Your task to perform on an android device: turn on sleep mode Image 0: 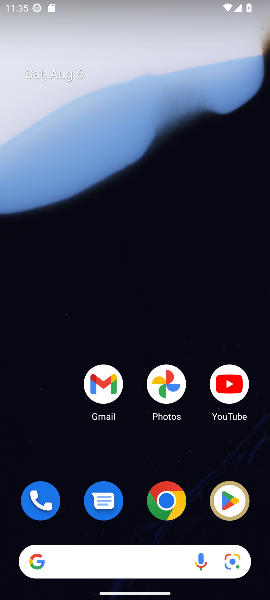
Step 0: drag from (143, 445) to (154, 152)
Your task to perform on an android device: turn on sleep mode Image 1: 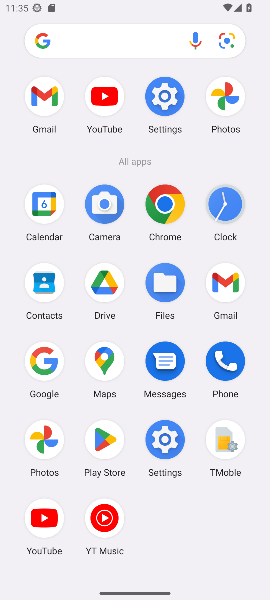
Step 1: task complete